Your task to perform on an android device: toggle pop-ups in chrome Image 0: 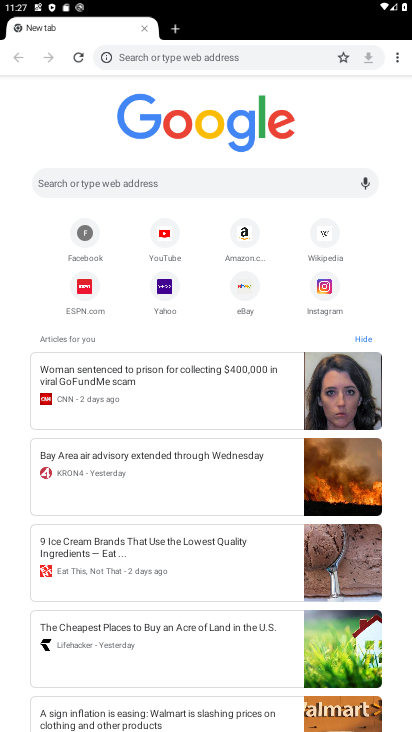
Step 0: drag from (100, 541) to (235, 328)
Your task to perform on an android device: toggle pop-ups in chrome Image 1: 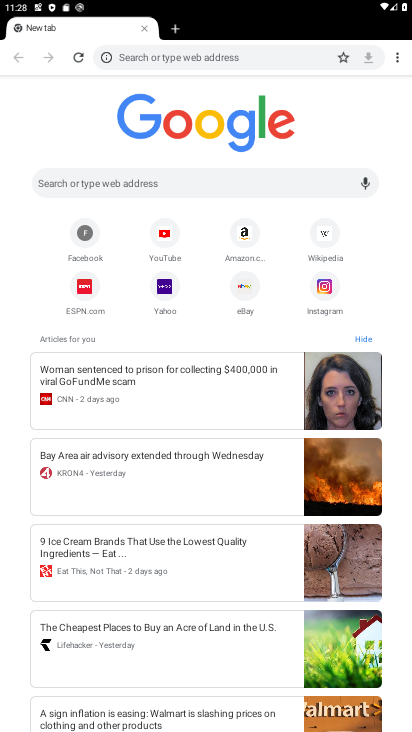
Step 1: click (395, 52)
Your task to perform on an android device: toggle pop-ups in chrome Image 2: 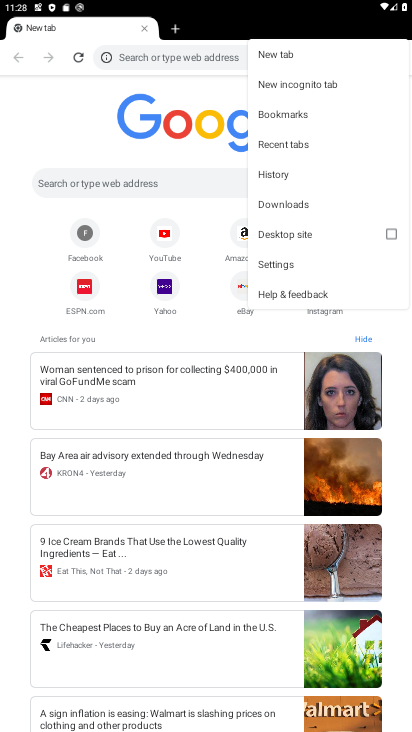
Step 2: click (292, 264)
Your task to perform on an android device: toggle pop-ups in chrome Image 3: 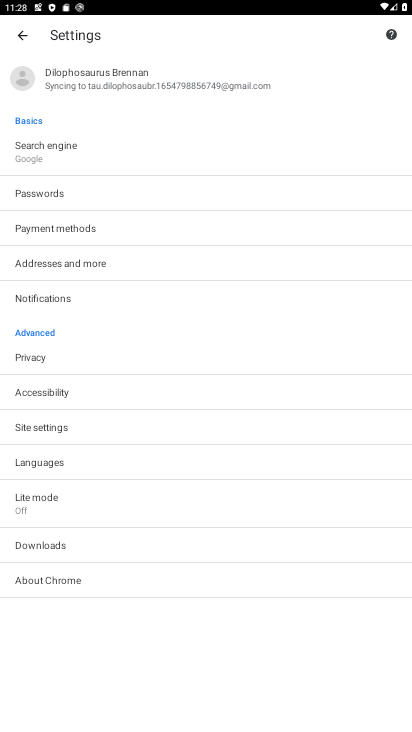
Step 3: click (57, 424)
Your task to perform on an android device: toggle pop-ups in chrome Image 4: 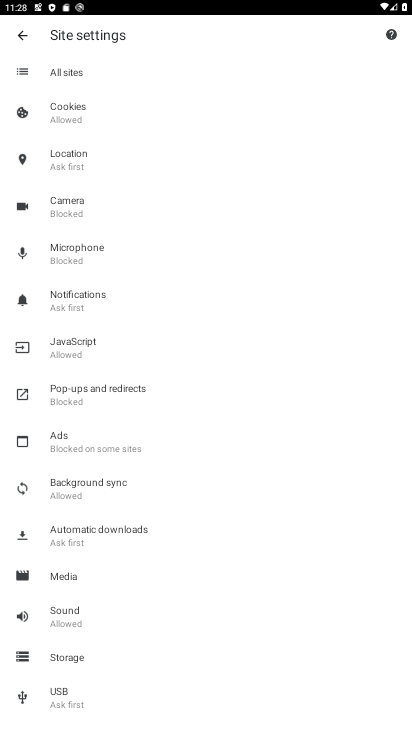
Step 4: click (64, 395)
Your task to perform on an android device: toggle pop-ups in chrome Image 5: 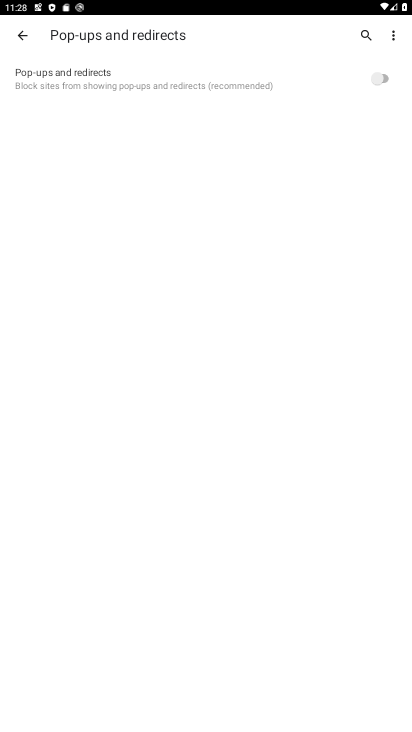
Step 5: click (386, 76)
Your task to perform on an android device: toggle pop-ups in chrome Image 6: 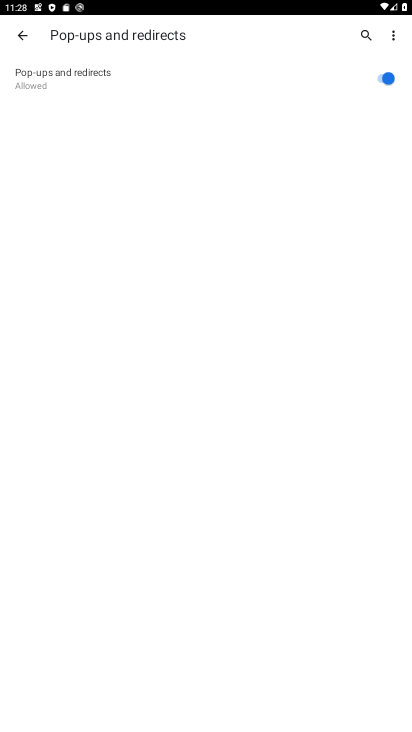
Step 6: task complete